Your task to perform on an android device: empty trash in google photos Image 0: 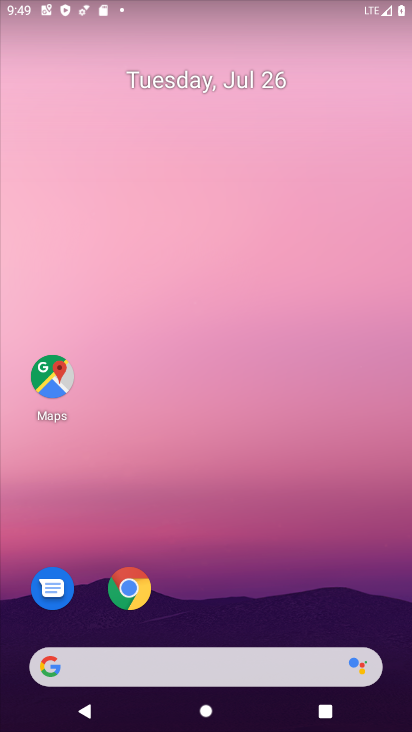
Step 0: drag from (180, 660) to (190, 54)
Your task to perform on an android device: empty trash in google photos Image 1: 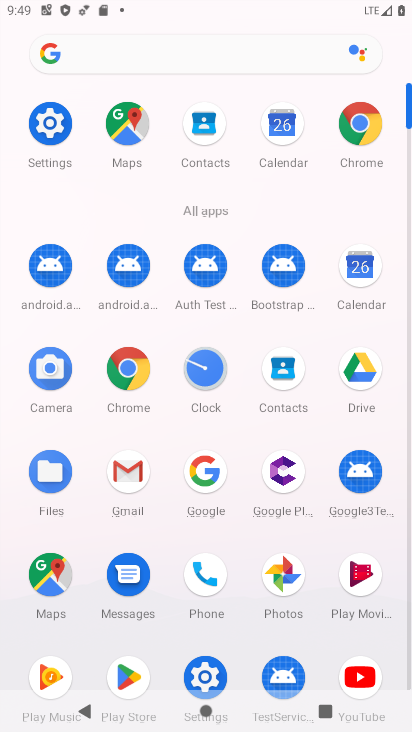
Step 1: click (283, 577)
Your task to perform on an android device: empty trash in google photos Image 2: 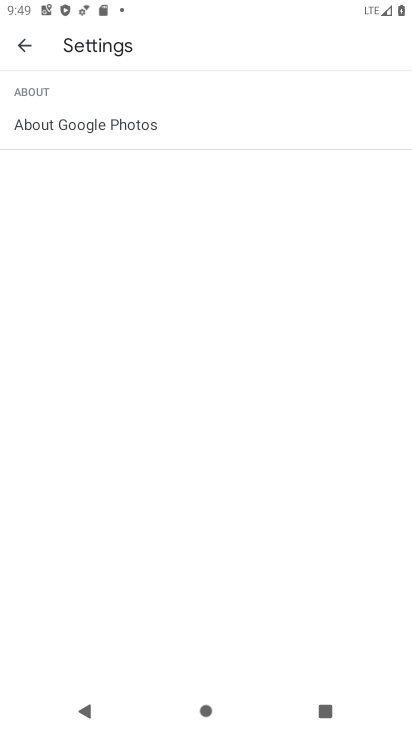
Step 2: press back button
Your task to perform on an android device: empty trash in google photos Image 3: 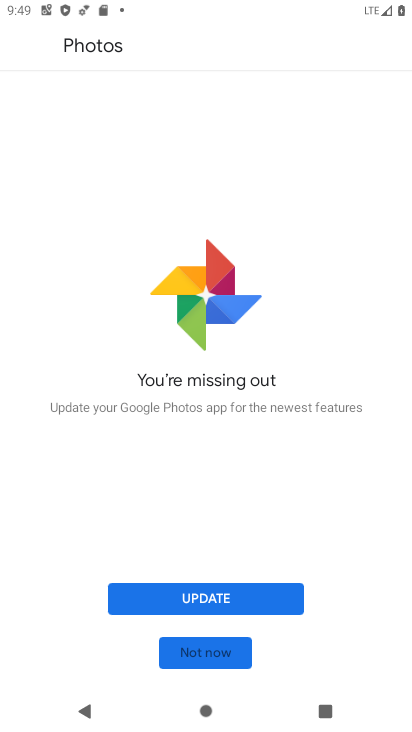
Step 3: click (200, 600)
Your task to perform on an android device: empty trash in google photos Image 4: 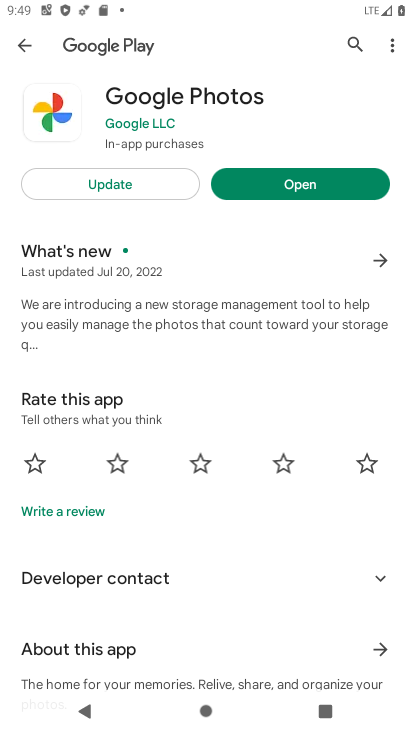
Step 4: click (115, 187)
Your task to perform on an android device: empty trash in google photos Image 5: 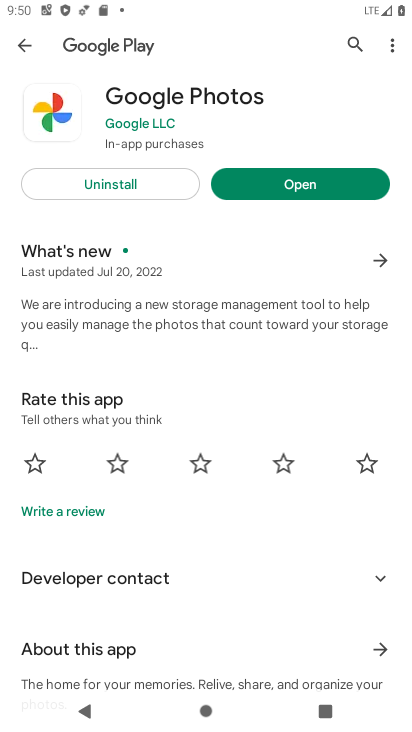
Step 5: click (294, 183)
Your task to perform on an android device: empty trash in google photos Image 6: 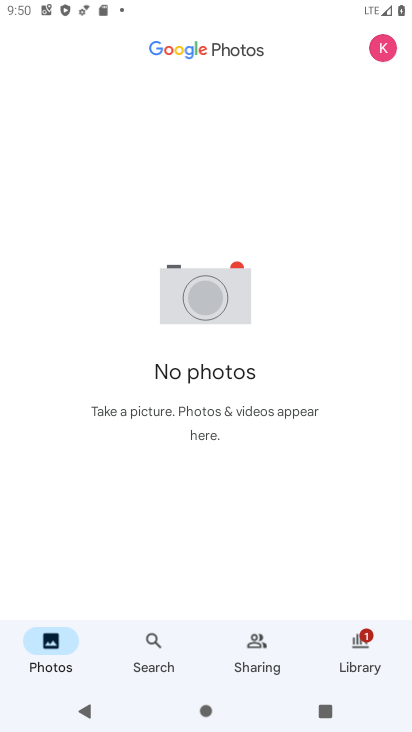
Step 6: click (361, 645)
Your task to perform on an android device: empty trash in google photos Image 7: 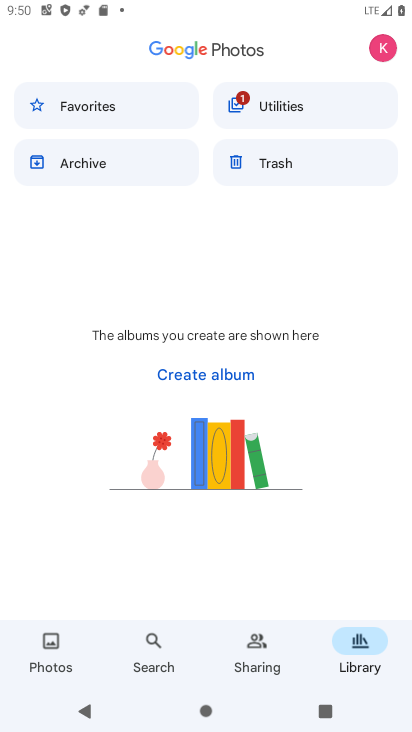
Step 7: click (276, 164)
Your task to perform on an android device: empty trash in google photos Image 8: 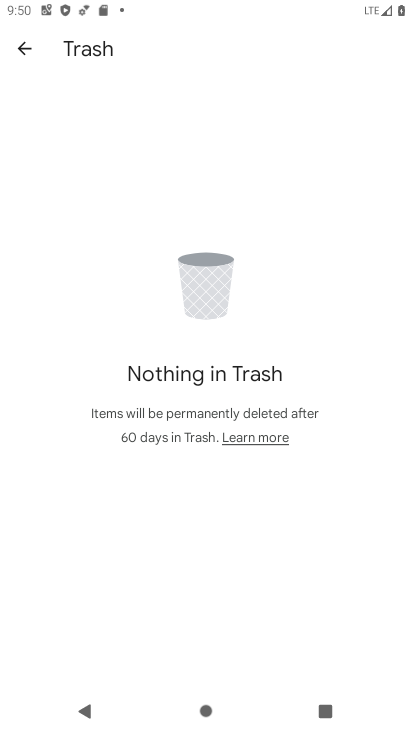
Step 8: task complete